Your task to perform on an android device: turn on data saver in the chrome app Image 0: 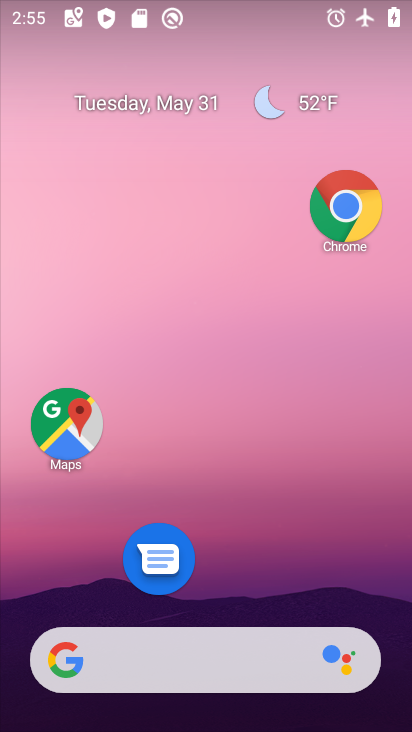
Step 0: drag from (254, 566) to (205, 201)
Your task to perform on an android device: turn on data saver in the chrome app Image 1: 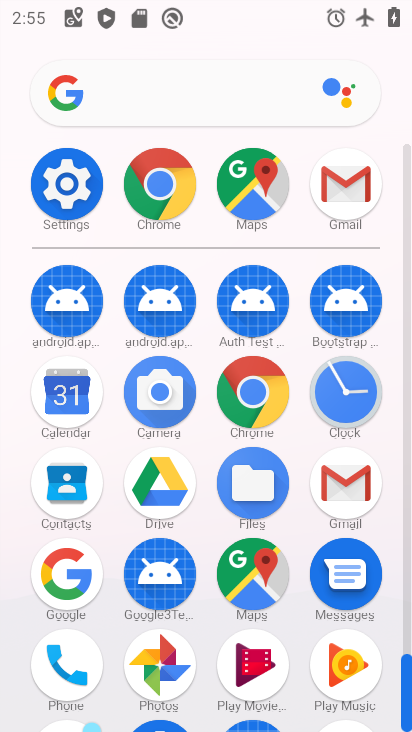
Step 1: click (245, 395)
Your task to perform on an android device: turn on data saver in the chrome app Image 2: 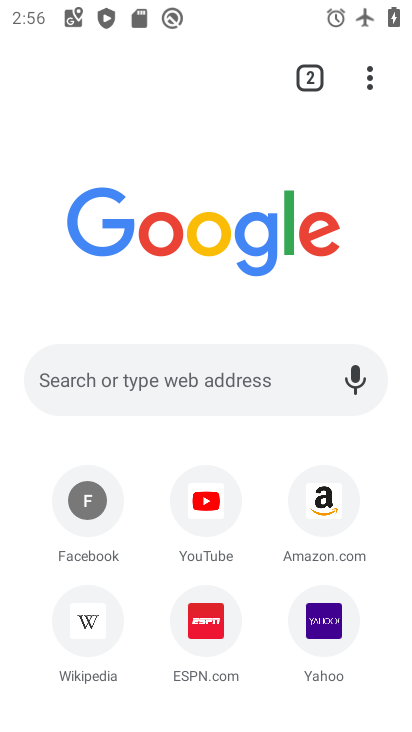
Step 2: click (376, 87)
Your task to perform on an android device: turn on data saver in the chrome app Image 3: 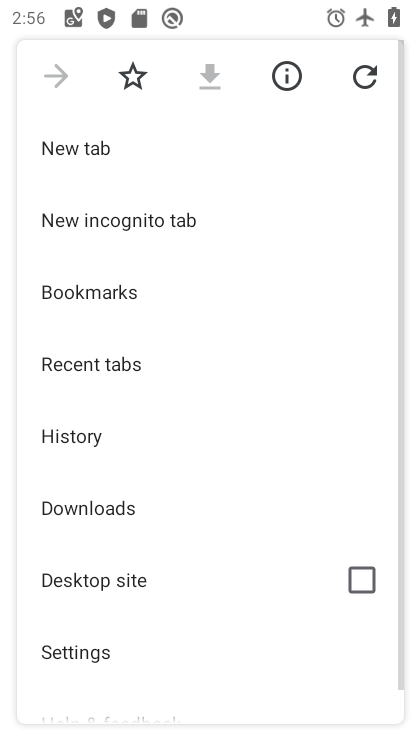
Step 3: click (100, 651)
Your task to perform on an android device: turn on data saver in the chrome app Image 4: 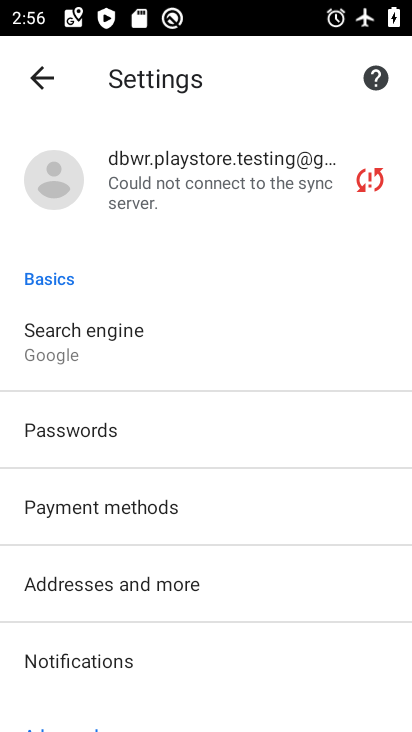
Step 4: drag from (198, 662) to (212, 373)
Your task to perform on an android device: turn on data saver in the chrome app Image 5: 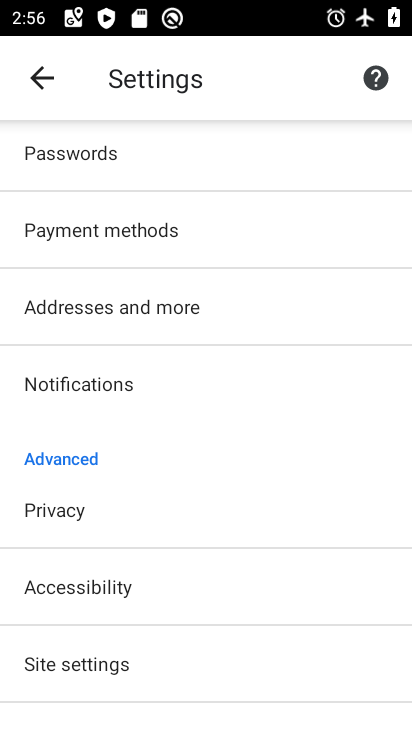
Step 5: drag from (241, 626) to (254, 296)
Your task to perform on an android device: turn on data saver in the chrome app Image 6: 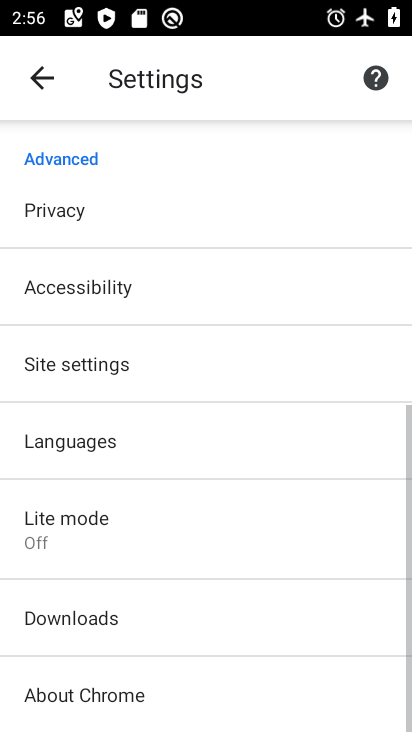
Step 6: click (116, 543)
Your task to perform on an android device: turn on data saver in the chrome app Image 7: 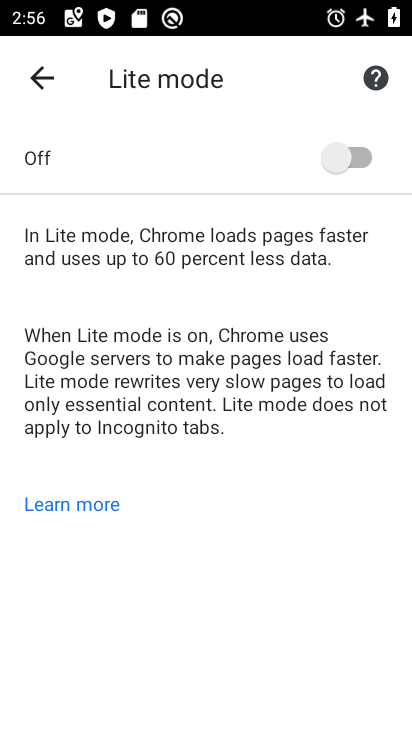
Step 7: click (348, 171)
Your task to perform on an android device: turn on data saver in the chrome app Image 8: 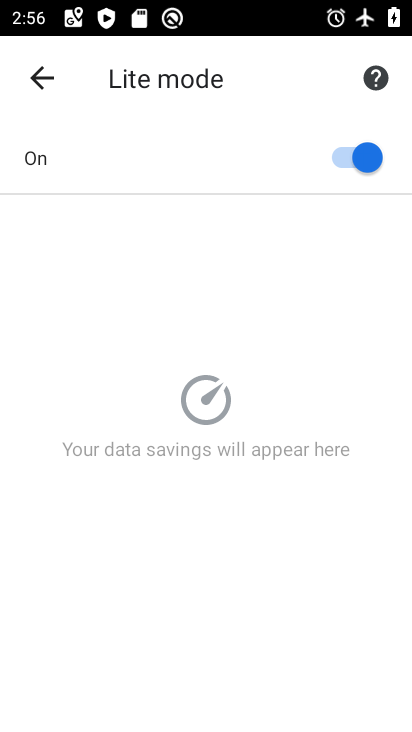
Step 8: task complete